Your task to perform on an android device: empty trash in the gmail app Image 0: 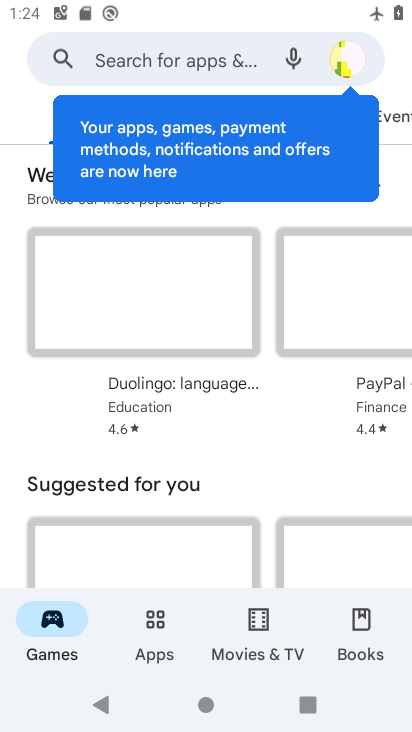
Step 0: press home button
Your task to perform on an android device: empty trash in the gmail app Image 1: 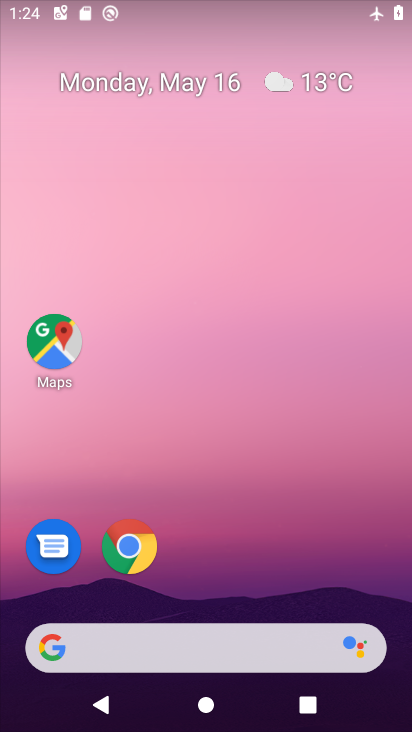
Step 1: drag from (226, 707) to (202, 184)
Your task to perform on an android device: empty trash in the gmail app Image 2: 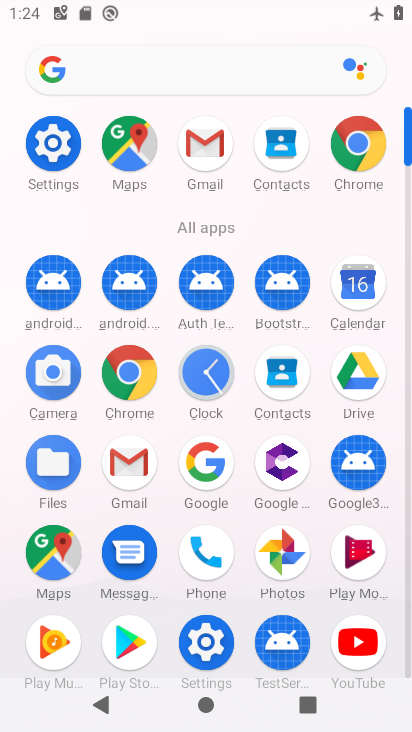
Step 2: click (122, 458)
Your task to perform on an android device: empty trash in the gmail app Image 3: 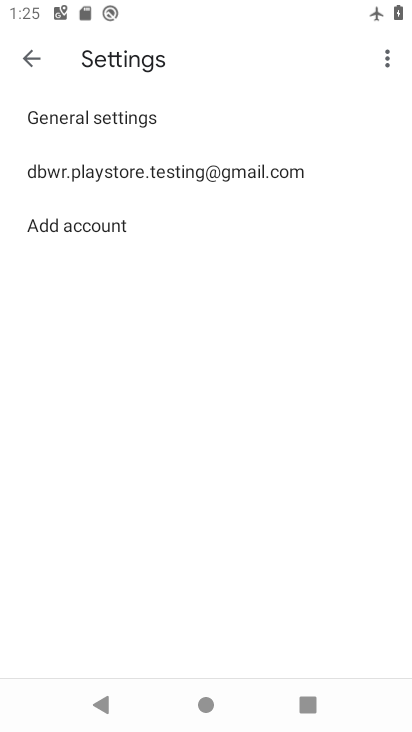
Step 3: click (32, 57)
Your task to perform on an android device: empty trash in the gmail app Image 4: 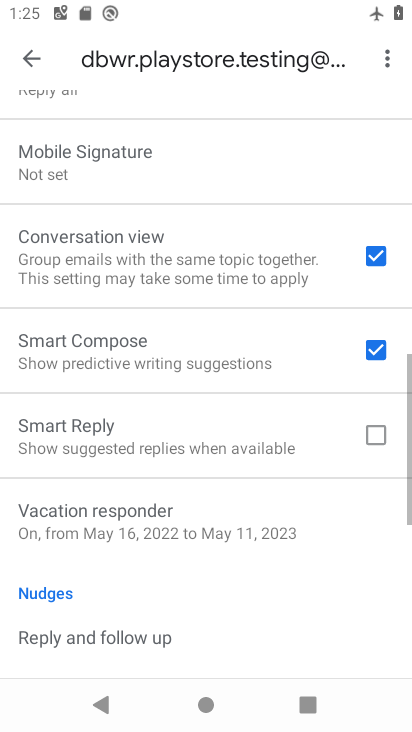
Step 4: click (27, 52)
Your task to perform on an android device: empty trash in the gmail app Image 5: 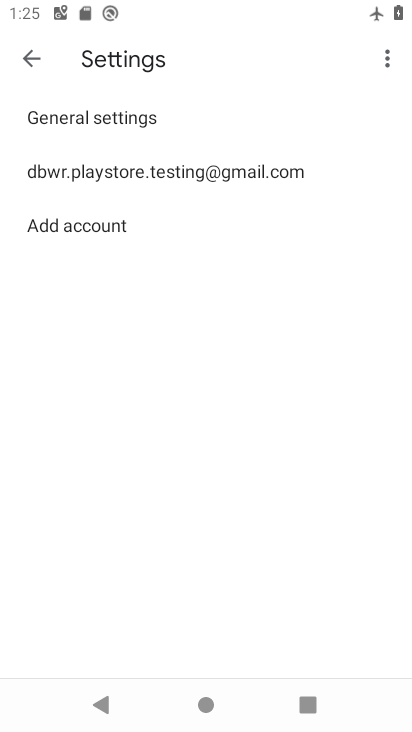
Step 5: click (30, 55)
Your task to perform on an android device: empty trash in the gmail app Image 6: 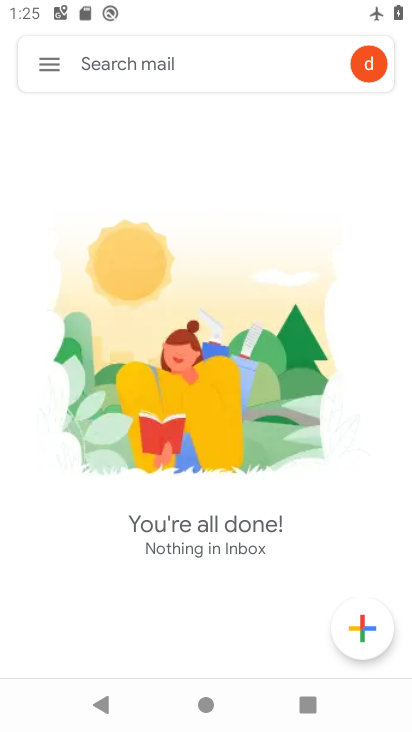
Step 6: click (44, 61)
Your task to perform on an android device: empty trash in the gmail app Image 7: 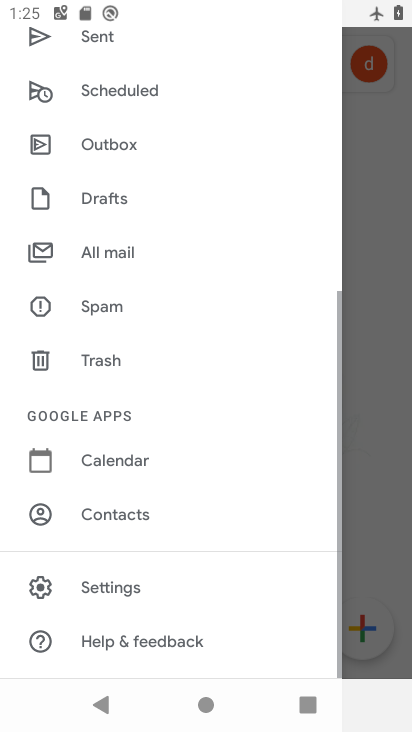
Step 7: drag from (101, 572) to (103, 409)
Your task to perform on an android device: empty trash in the gmail app Image 8: 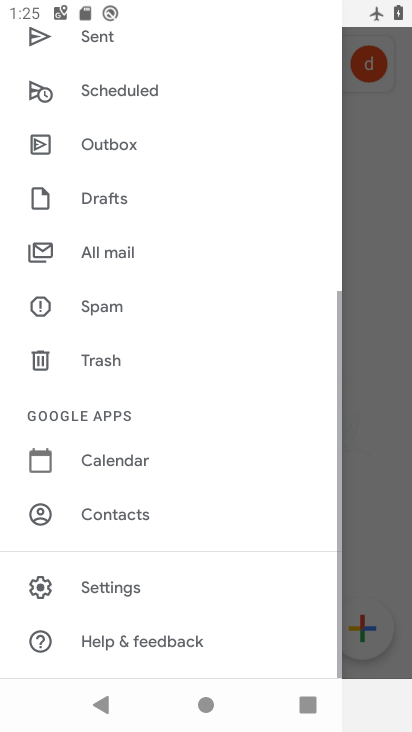
Step 8: click (106, 350)
Your task to perform on an android device: empty trash in the gmail app Image 9: 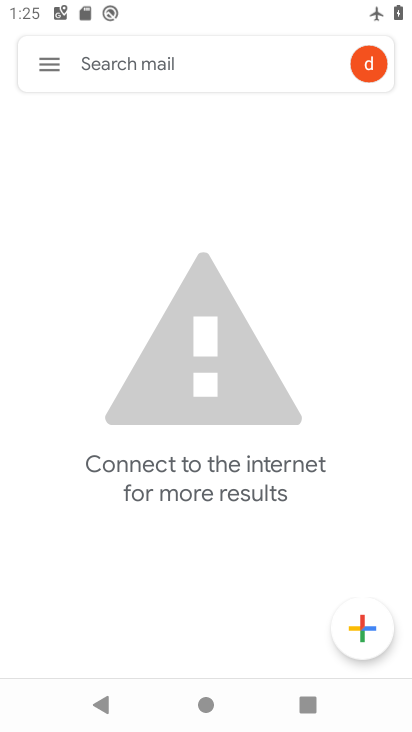
Step 9: task complete